Your task to perform on an android device: Open Chrome and go to settings Image 0: 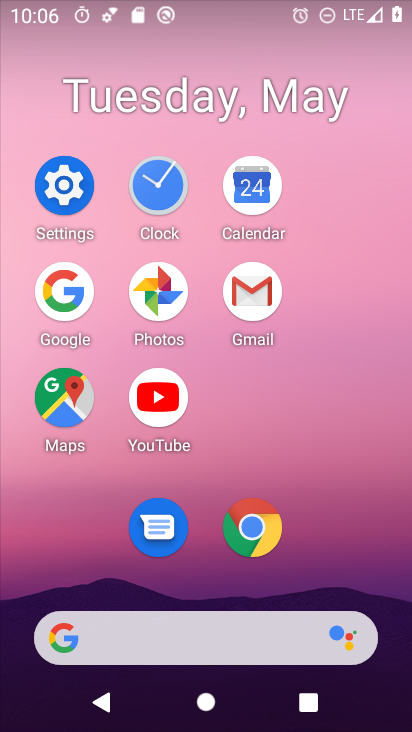
Step 0: click (244, 527)
Your task to perform on an android device: Open Chrome and go to settings Image 1: 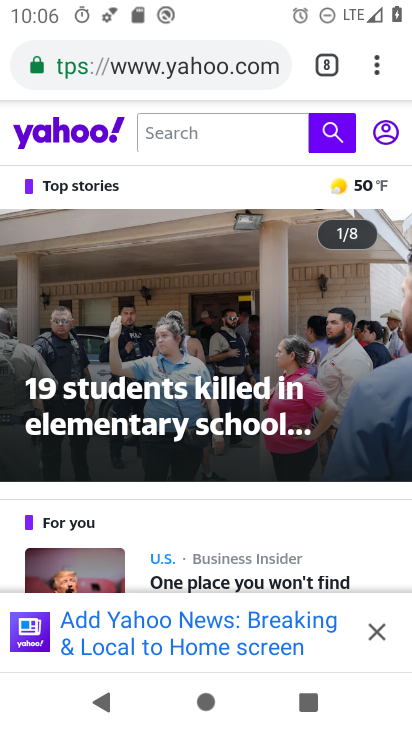
Step 1: click (375, 67)
Your task to perform on an android device: Open Chrome and go to settings Image 2: 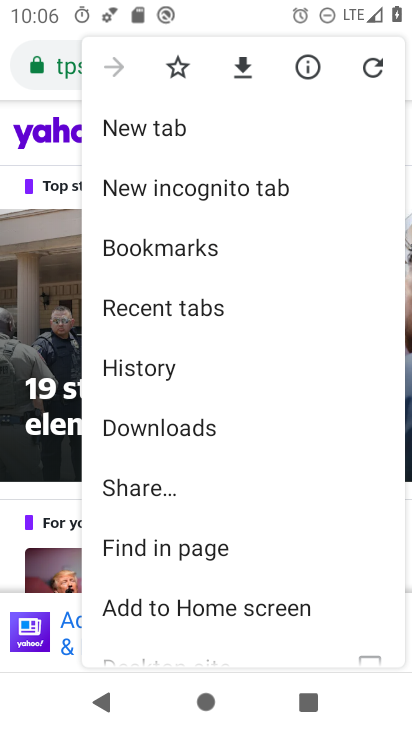
Step 2: drag from (166, 464) to (207, 119)
Your task to perform on an android device: Open Chrome and go to settings Image 3: 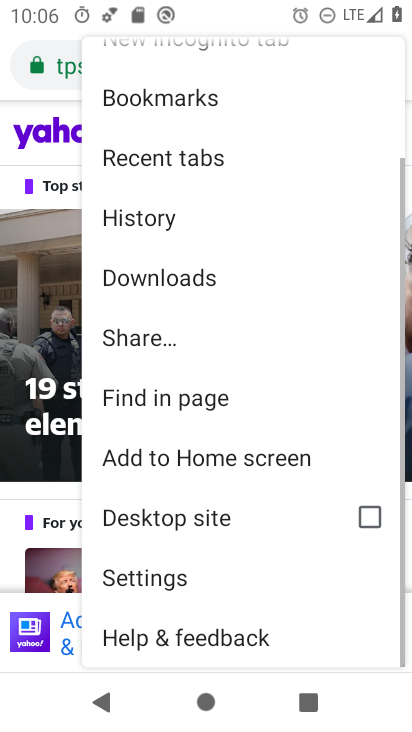
Step 3: click (147, 560)
Your task to perform on an android device: Open Chrome and go to settings Image 4: 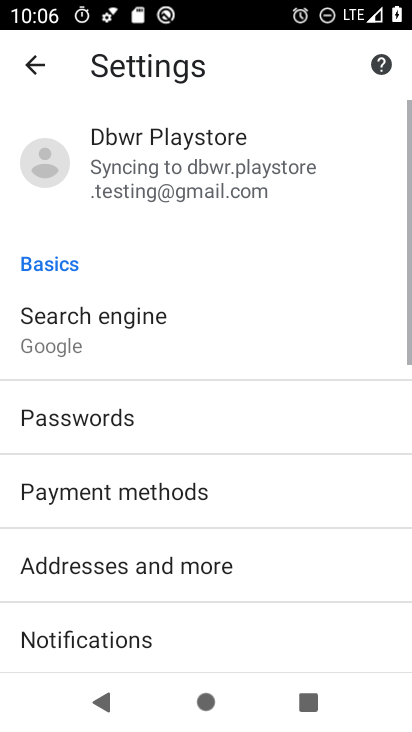
Step 4: task complete